Your task to perform on an android device: show emergency info Image 0: 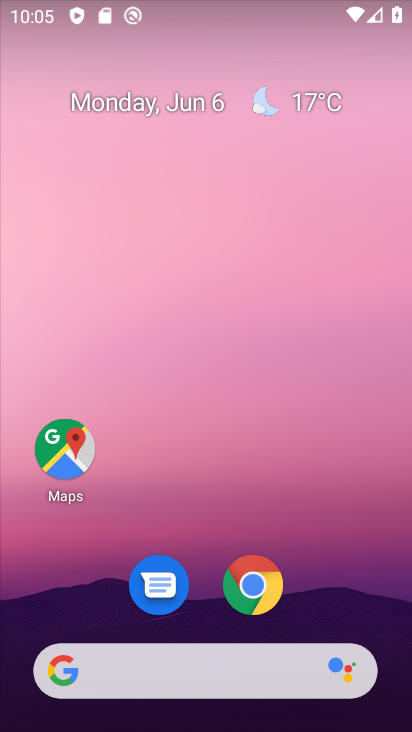
Step 0: drag from (213, 452) to (211, 0)
Your task to perform on an android device: show emergency info Image 1: 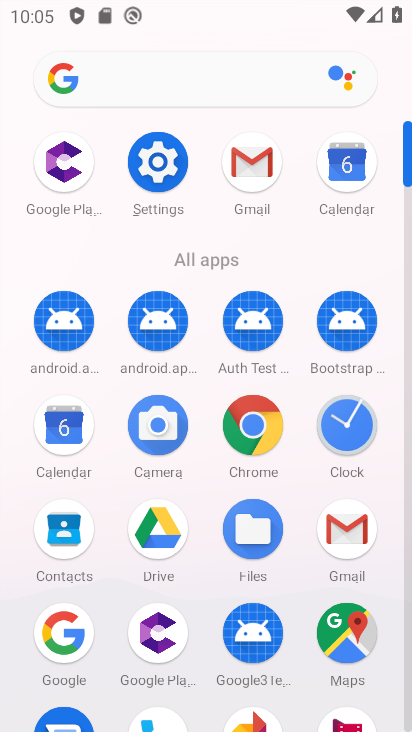
Step 1: click (156, 176)
Your task to perform on an android device: show emergency info Image 2: 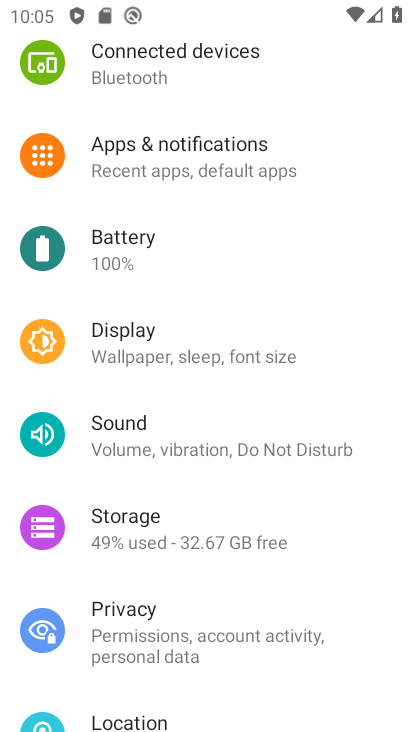
Step 2: drag from (283, 550) to (282, 3)
Your task to perform on an android device: show emergency info Image 3: 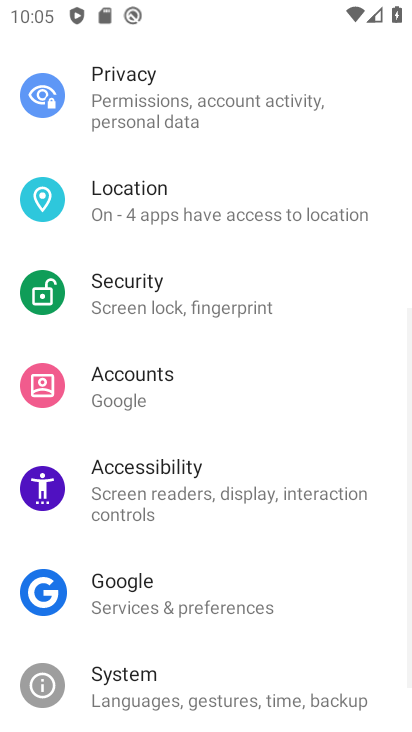
Step 3: drag from (259, 543) to (265, 346)
Your task to perform on an android device: show emergency info Image 4: 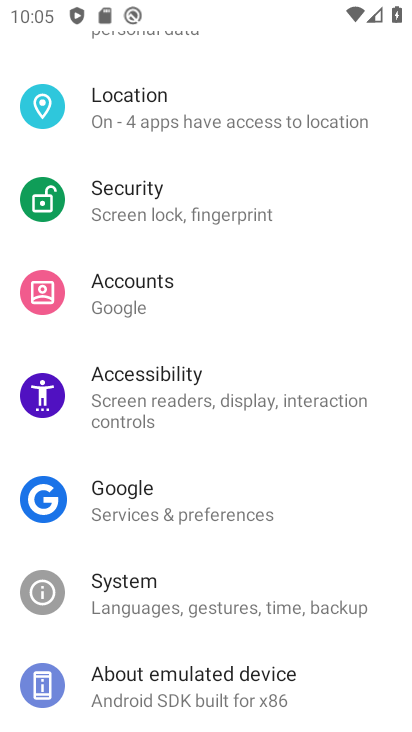
Step 4: click (204, 671)
Your task to perform on an android device: show emergency info Image 5: 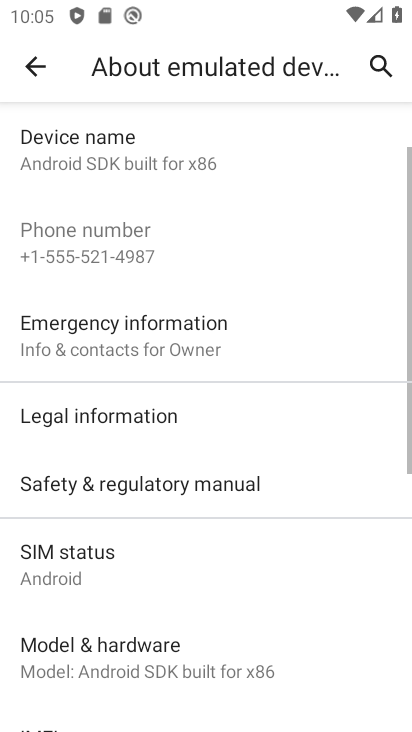
Step 5: click (228, 340)
Your task to perform on an android device: show emergency info Image 6: 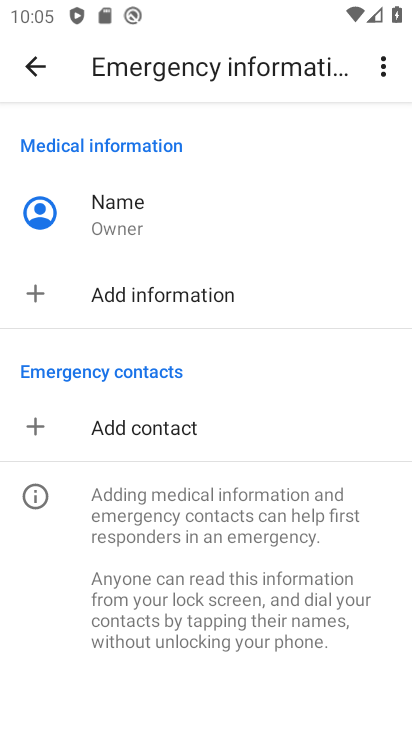
Step 6: task complete